Your task to perform on an android device: Open Wikipedia Image 0: 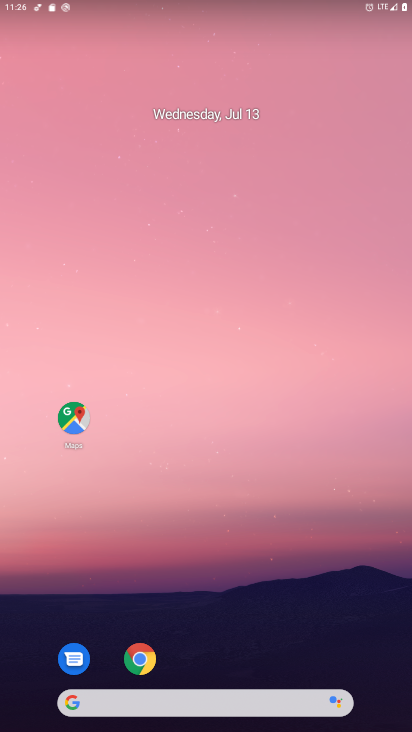
Step 0: press home button
Your task to perform on an android device: Open Wikipedia Image 1: 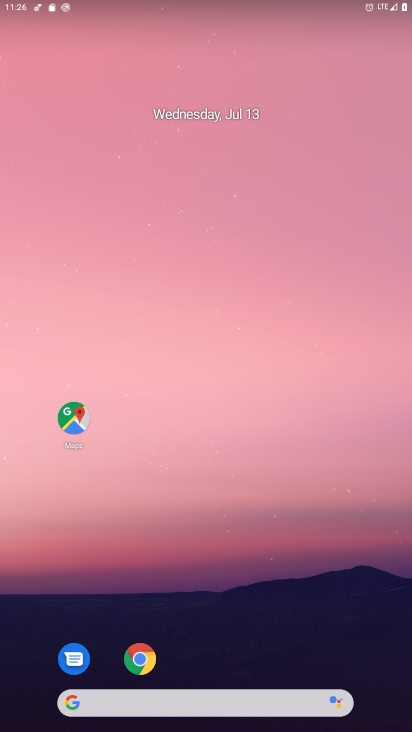
Step 1: drag from (203, 677) to (204, 11)
Your task to perform on an android device: Open Wikipedia Image 2: 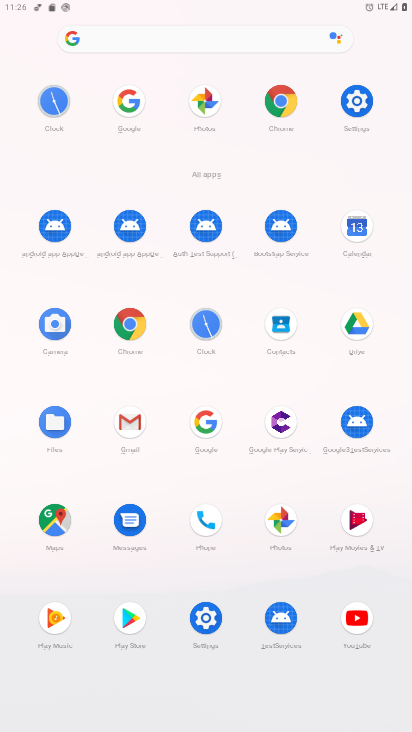
Step 2: click (279, 94)
Your task to perform on an android device: Open Wikipedia Image 3: 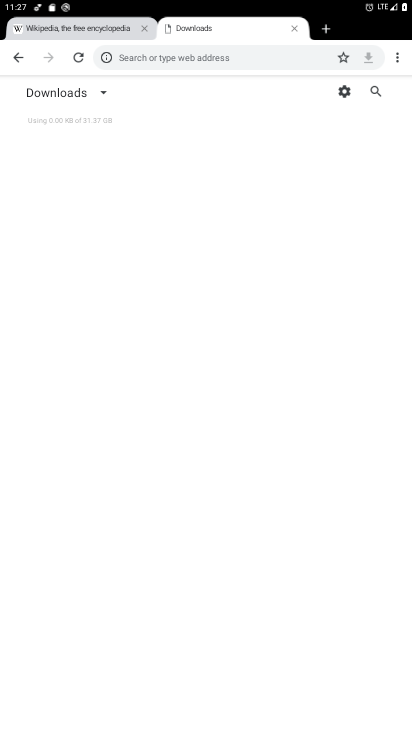
Step 3: click (321, 27)
Your task to perform on an android device: Open Wikipedia Image 4: 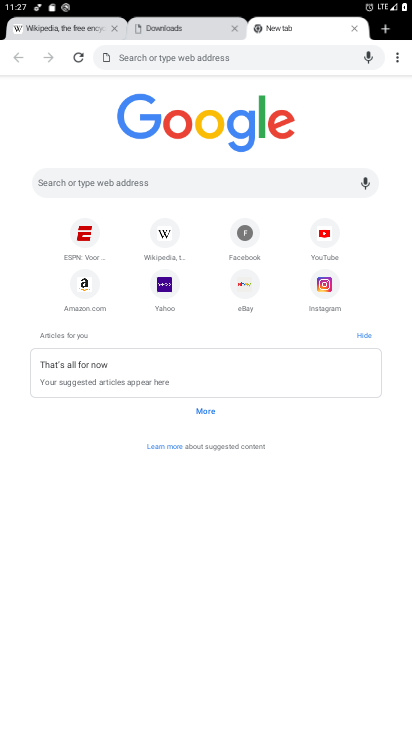
Step 4: click (163, 225)
Your task to perform on an android device: Open Wikipedia Image 5: 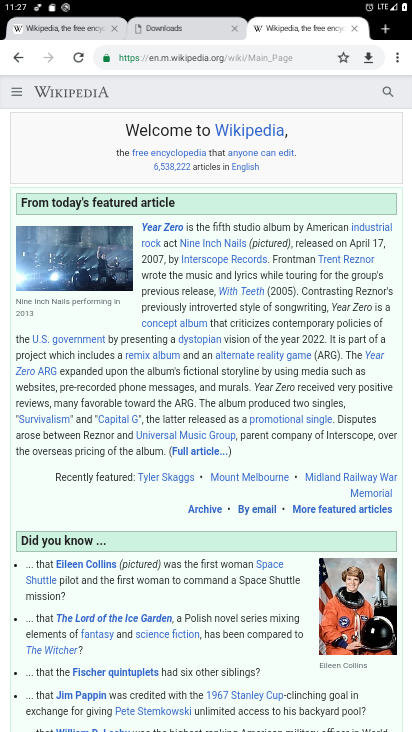
Step 5: task complete